Your task to perform on an android device: see tabs open on other devices in the chrome app Image 0: 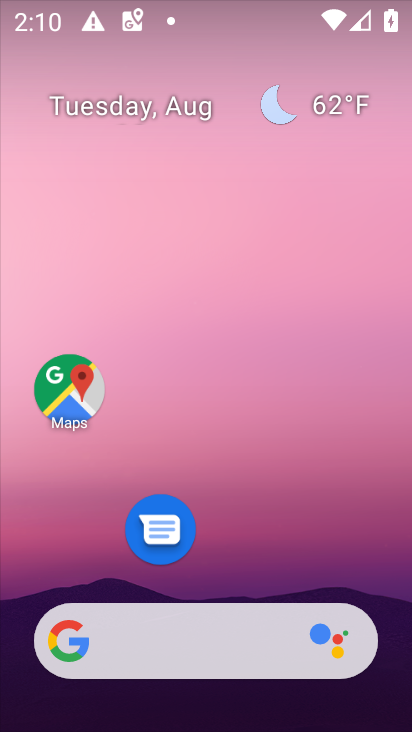
Step 0: drag from (252, 591) to (301, 367)
Your task to perform on an android device: see tabs open on other devices in the chrome app Image 1: 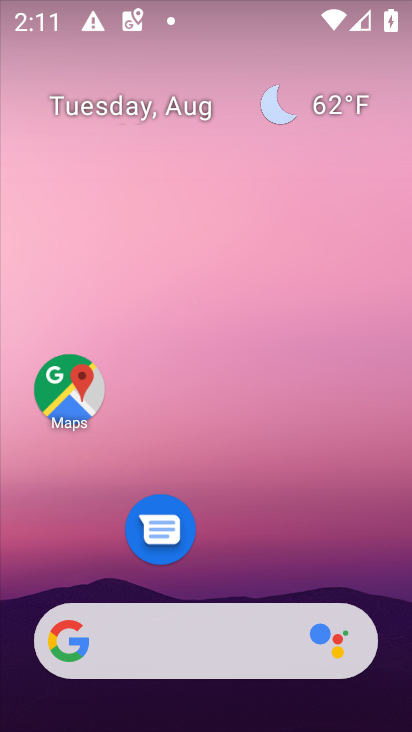
Step 1: drag from (270, 577) to (258, 209)
Your task to perform on an android device: see tabs open on other devices in the chrome app Image 2: 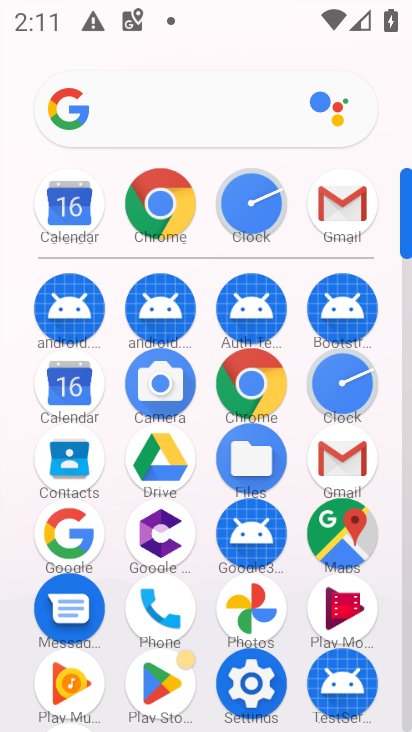
Step 2: click (165, 200)
Your task to perform on an android device: see tabs open on other devices in the chrome app Image 3: 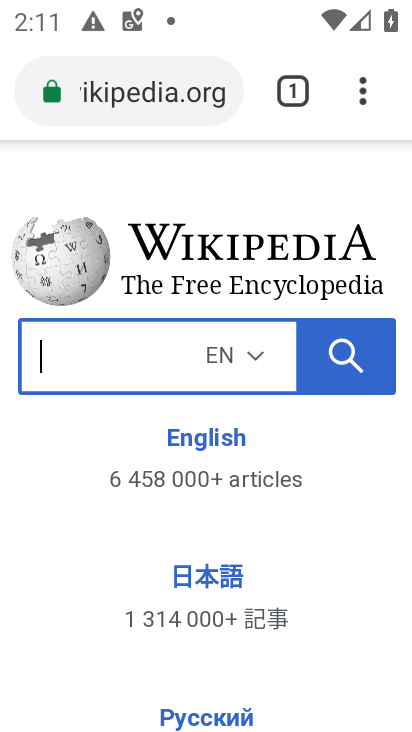
Step 3: task complete